Your task to perform on an android device: toggle javascript in the chrome app Image 0: 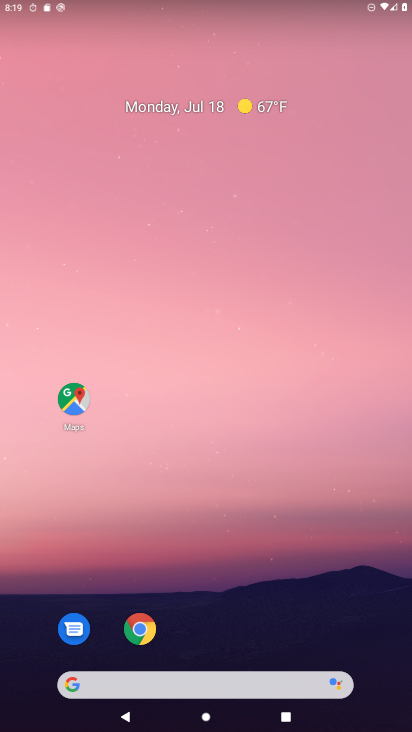
Step 0: click (137, 625)
Your task to perform on an android device: toggle javascript in the chrome app Image 1: 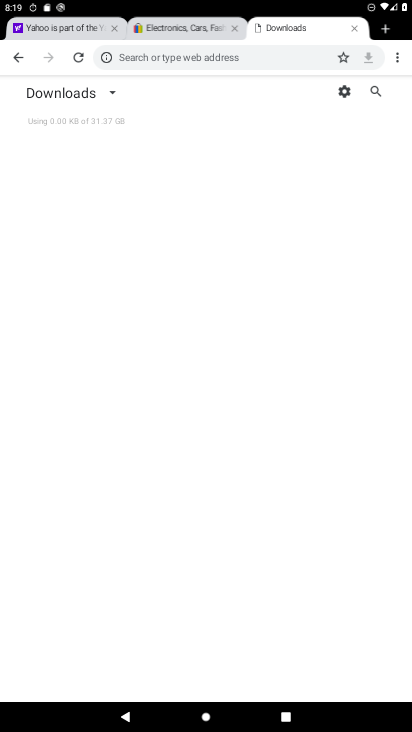
Step 1: click (401, 56)
Your task to perform on an android device: toggle javascript in the chrome app Image 2: 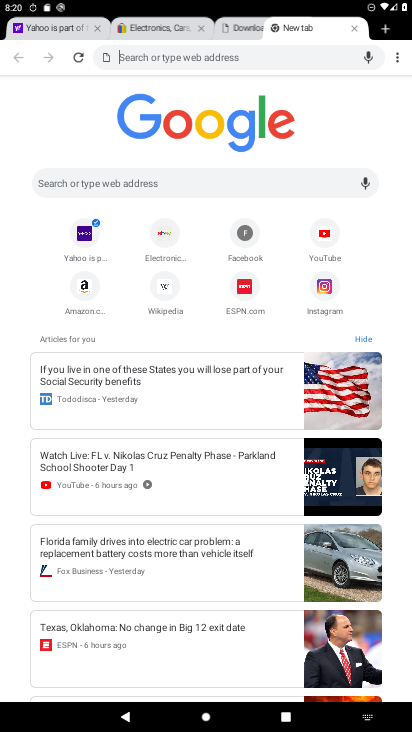
Step 2: drag from (395, 51) to (279, 262)
Your task to perform on an android device: toggle javascript in the chrome app Image 3: 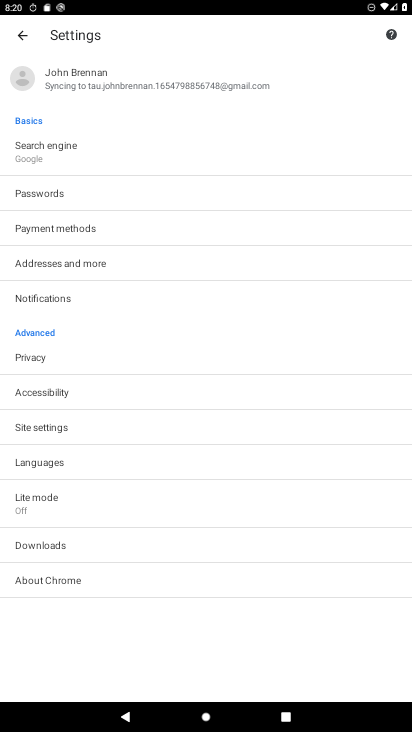
Step 3: click (35, 426)
Your task to perform on an android device: toggle javascript in the chrome app Image 4: 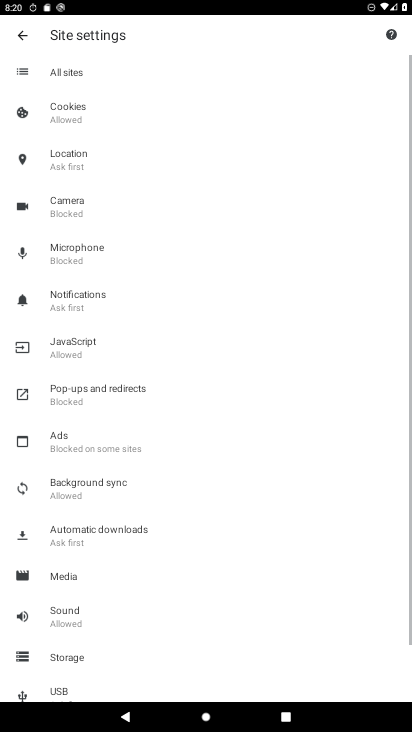
Step 4: click (82, 350)
Your task to perform on an android device: toggle javascript in the chrome app Image 5: 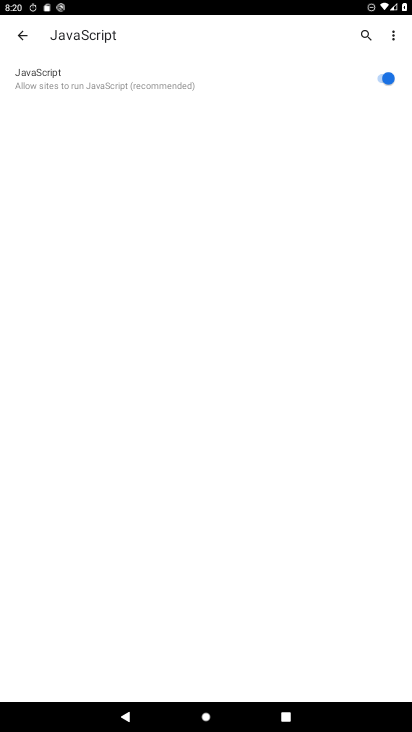
Step 5: click (372, 78)
Your task to perform on an android device: toggle javascript in the chrome app Image 6: 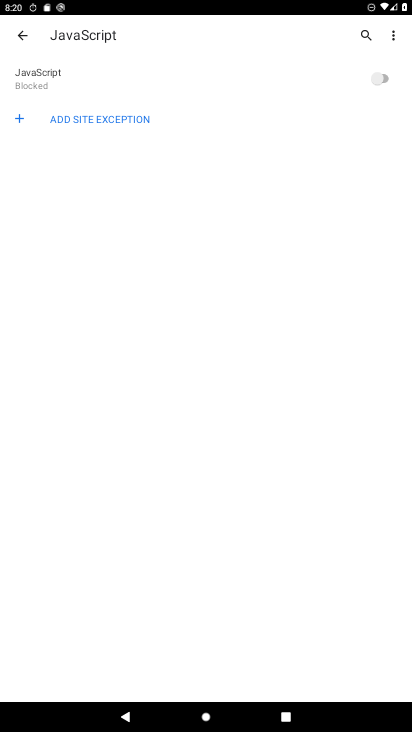
Step 6: task complete